Your task to perform on an android device: Go to accessibility settings Image 0: 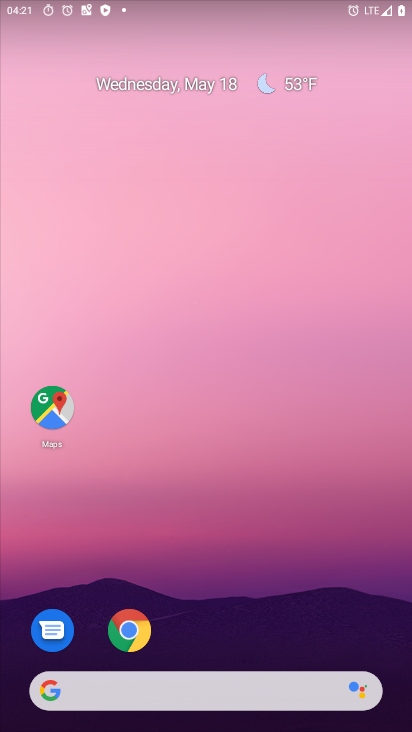
Step 0: drag from (216, 709) to (252, 28)
Your task to perform on an android device: Go to accessibility settings Image 1: 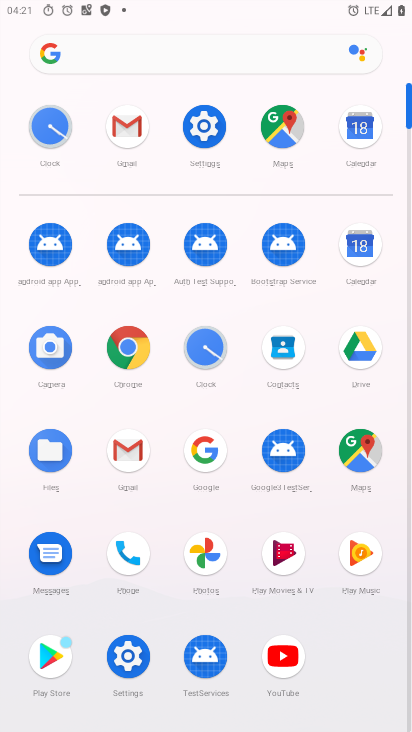
Step 1: click (203, 131)
Your task to perform on an android device: Go to accessibility settings Image 2: 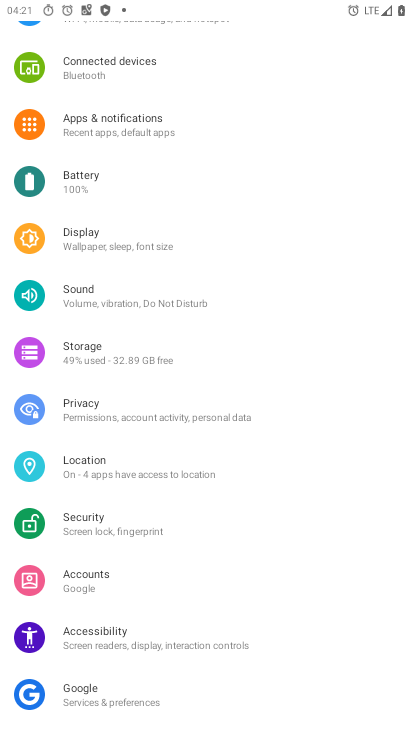
Step 2: click (115, 632)
Your task to perform on an android device: Go to accessibility settings Image 3: 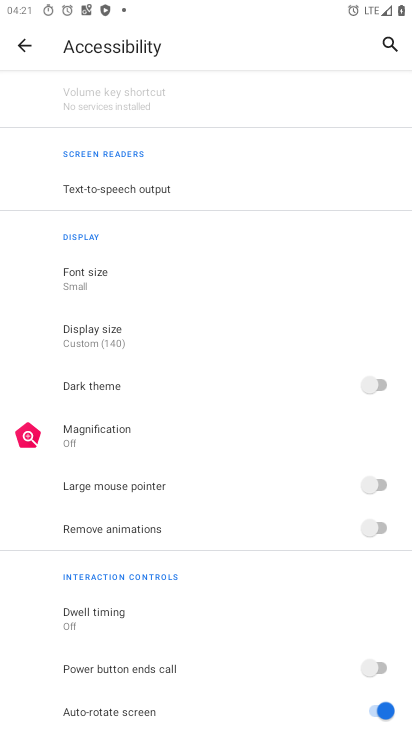
Step 3: task complete